Your task to perform on an android device: change alarm snooze length Image 0: 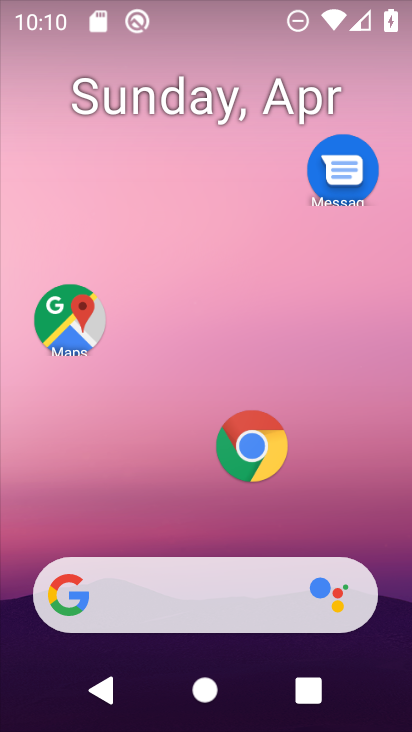
Step 0: click (410, 383)
Your task to perform on an android device: change alarm snooze length Image 1: 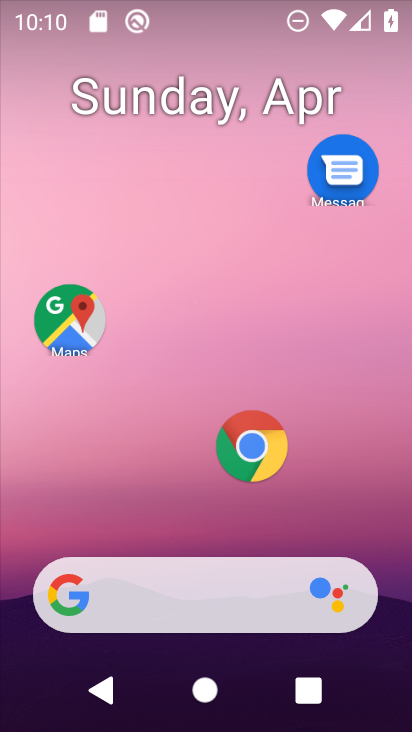
Step 1: drag from (214, 434) to (214, 138)
Your task to perform on an android device: change alarm snooze length Image 2: 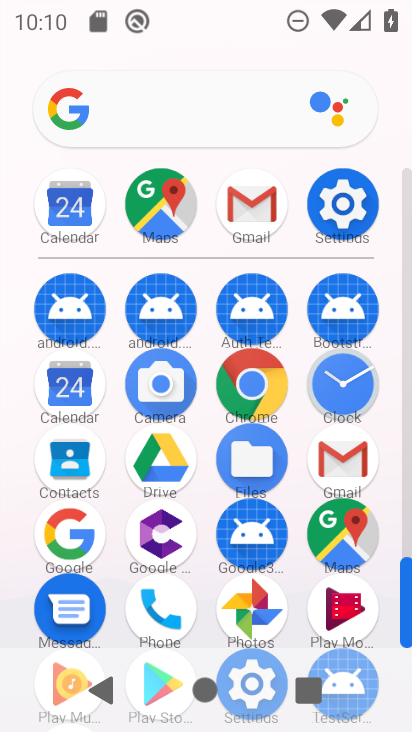
Step 2: click (334, 401)
Your task to perform on an android device: change alarm snooze length Image 3: 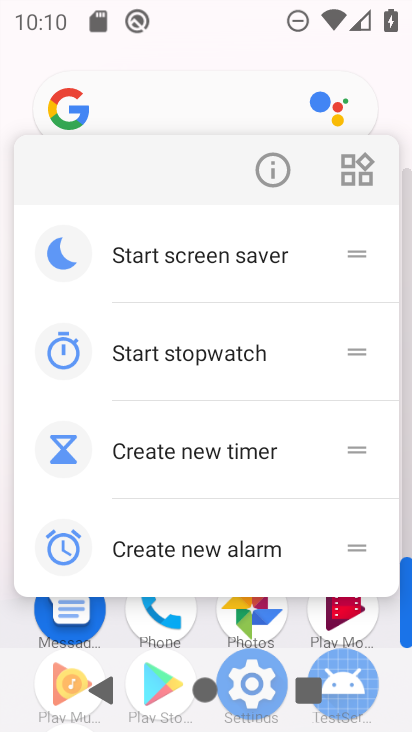
Step 3: click (262, 167)
Your task to perform on an android device: change alarm snooze length Image 4: 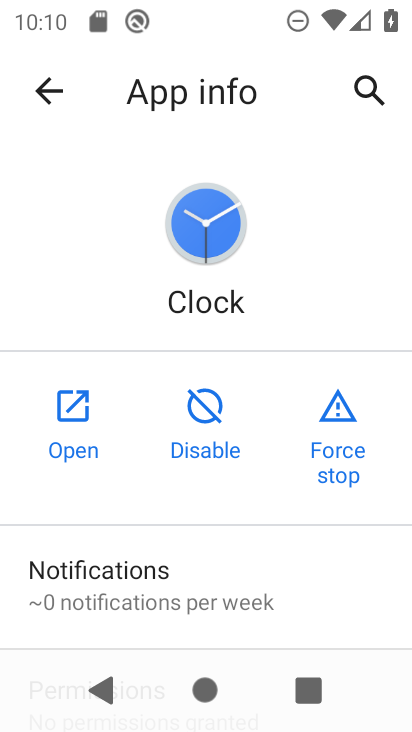
Step 4: click (68, 409)
Your task to perform on an android device: change alarm snooze length Image 5: 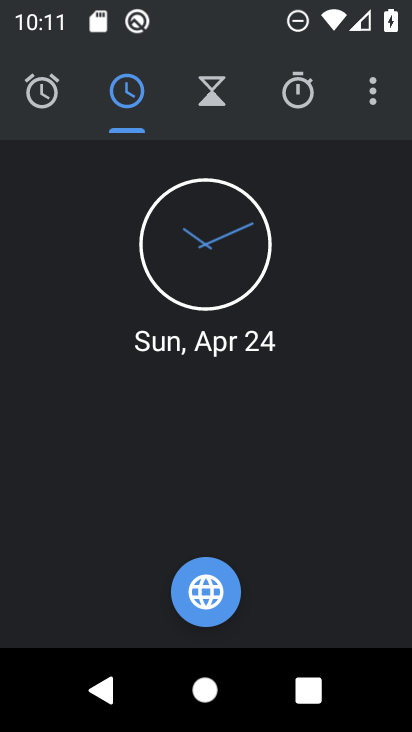
Step 5: click (384, 85)
Your task to perform on an android device: change alarm snooze length Image 6: 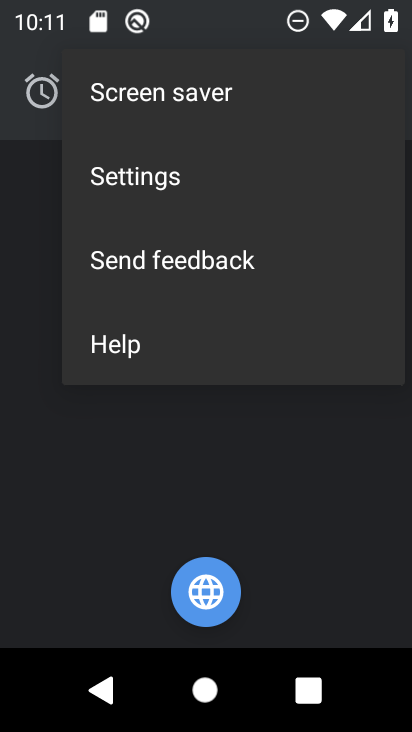
Step 6: click (199, 180)
Your task to perform on an android device: change alarm snooze length Image 7: 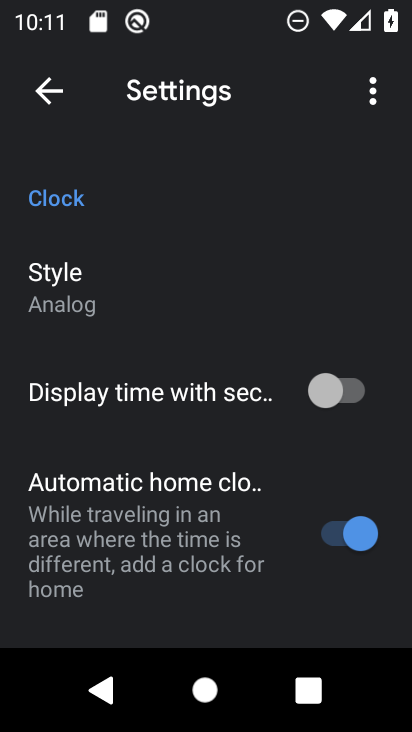
Step 7: drag from (182, 552) to (211, 76)
Your task to perform on an android device: change alarm snooze length Image 8: 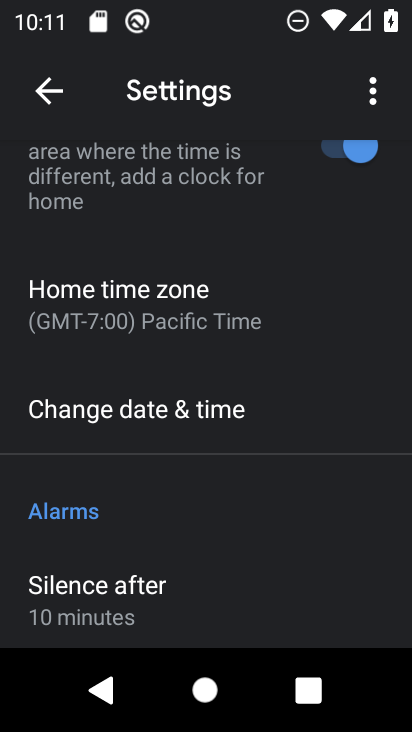
Step 8: drag from (186, 502) to (199, 128)
Your task to perform on an android device: change alarm snooze length Image 9: 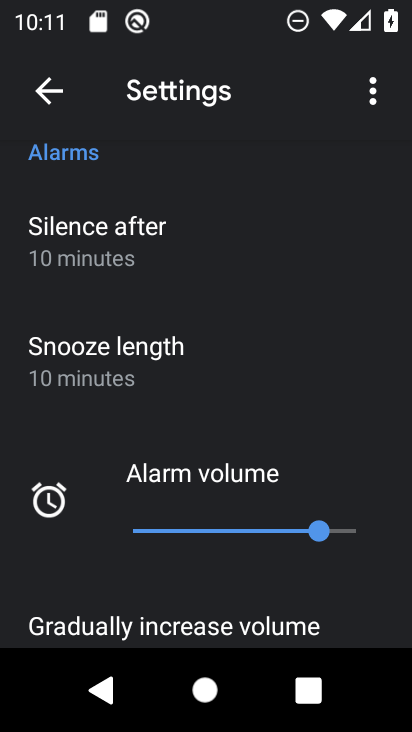
Step 9: click (128, 377)
Your task to perform on an android device: change alarm snooze length Image 10: 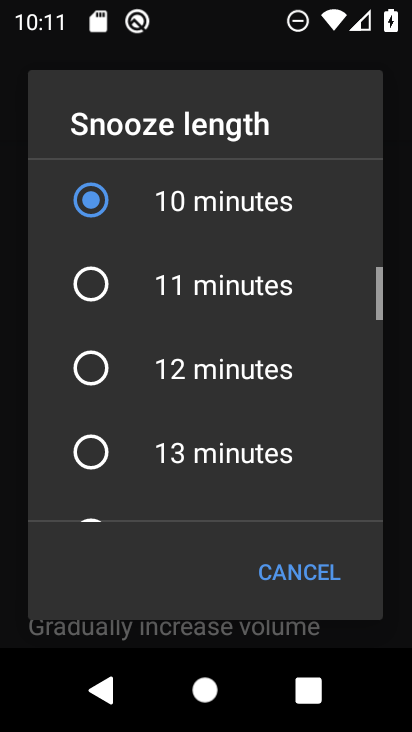
Step 10: click (189, 262)
Your task to perform on an android device: change alarm snooze length Image 11: 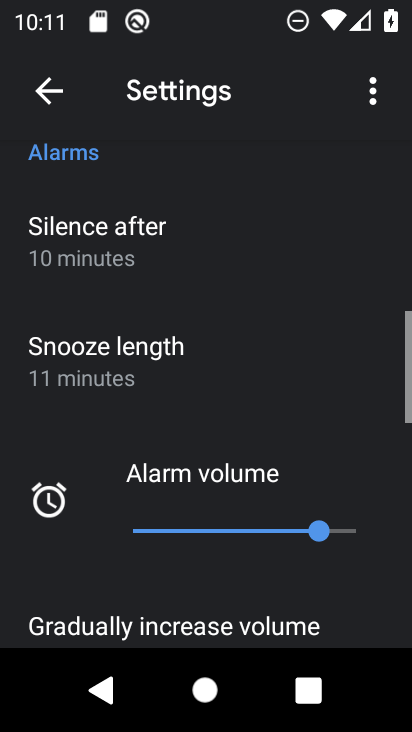
Step 11: task complete